Your task to perform on an android device: What is the recent news? Image 0: 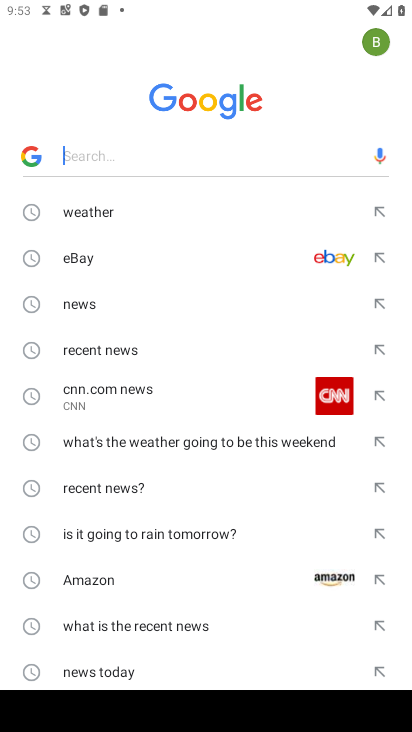
Step 0: press home button
Your task to perform on an android device: What is the recent news? Image 1: 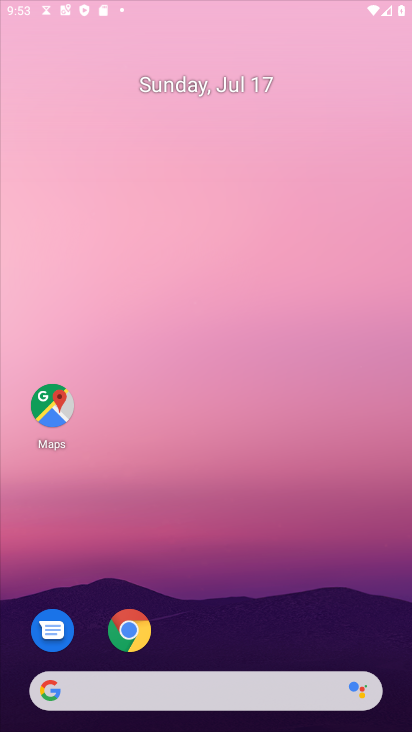
Step 1: drag from (277, 692) to (366, 63)
Your task to perform on an android device: What is the recent news? Image 2: 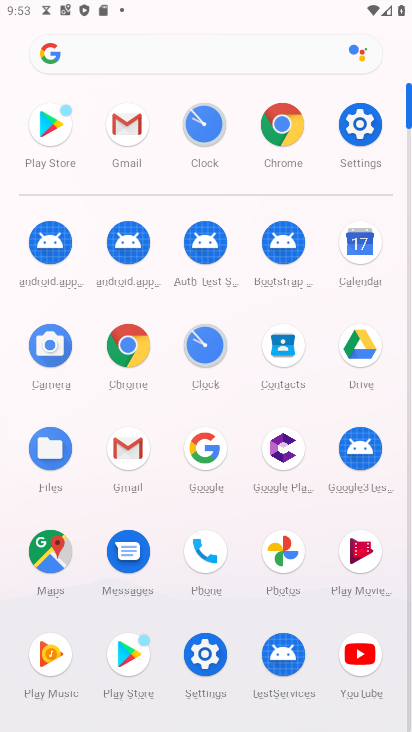
Step 2: click (134, 339)
Your task to perform on an android device: What is the recent news? Image 3: 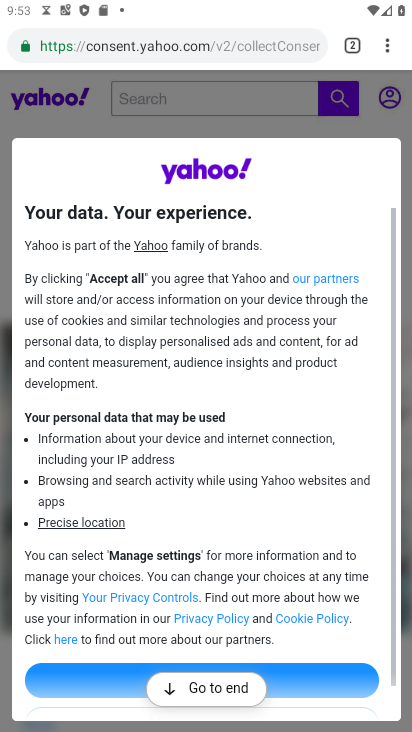
Step 3: click (215, 43)
Your task to perform on an android device: What is the recent news? Image 4: 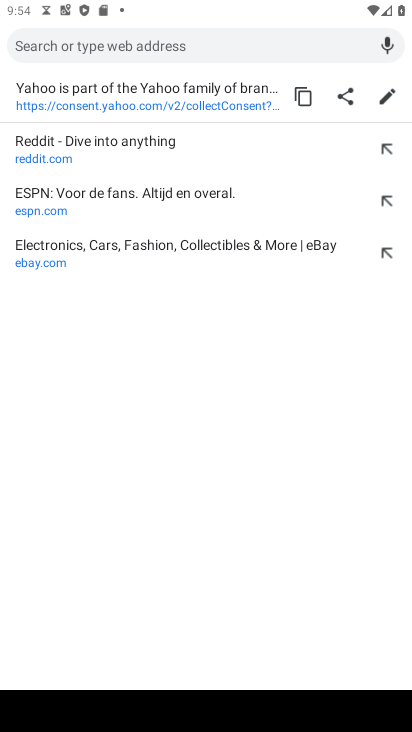
Step 4: type "what is the recent news"
Your task to perform on an android device: What is the recent news? Image 5: 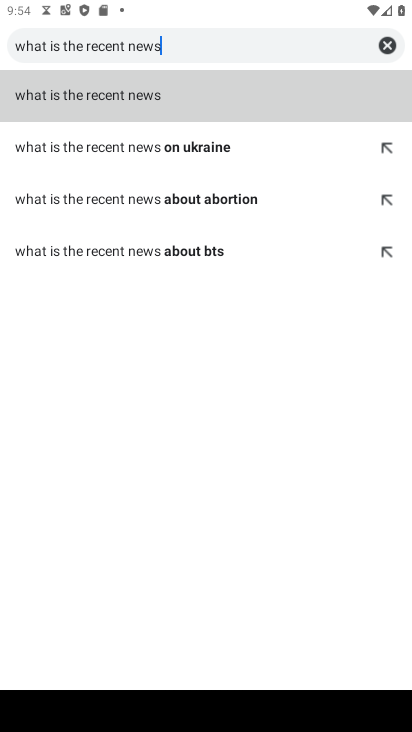
Step 5: click (138, 84)
Your task to perform on an android device: What is the recent news? Image 6: 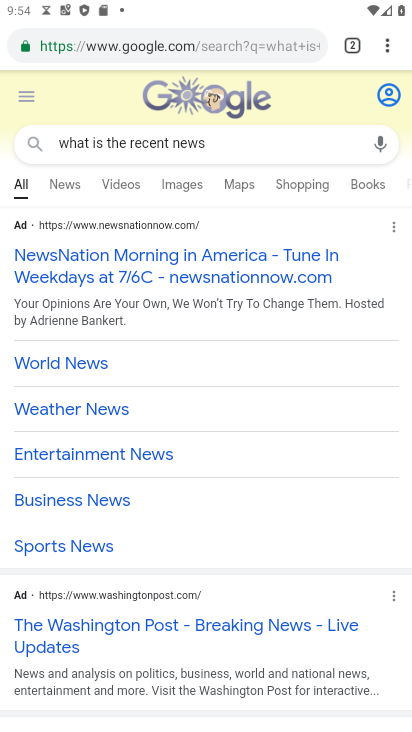
Step 6: task complete